Your task to perform on an android device: check data usage Image 0: 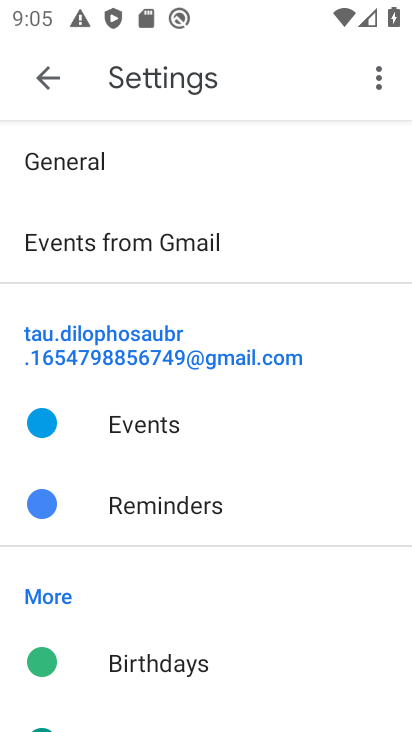
Step 0: press home button
Your task to perform on an android device: check data usage Image 1: 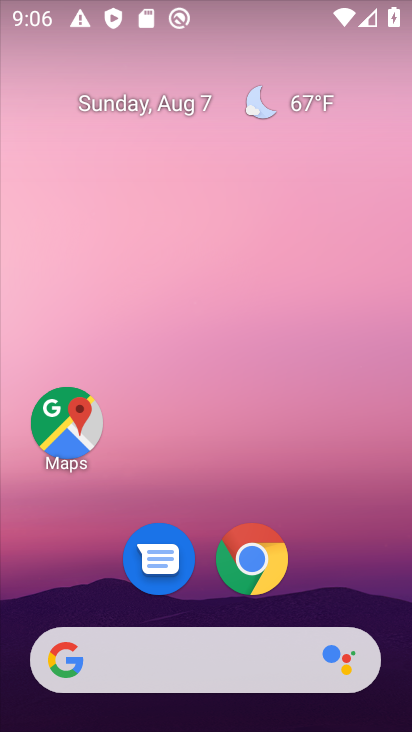
Step 1: drag from (341, 9) to (348, 627)
Your task to perform on an android device: check data usage Image 2: 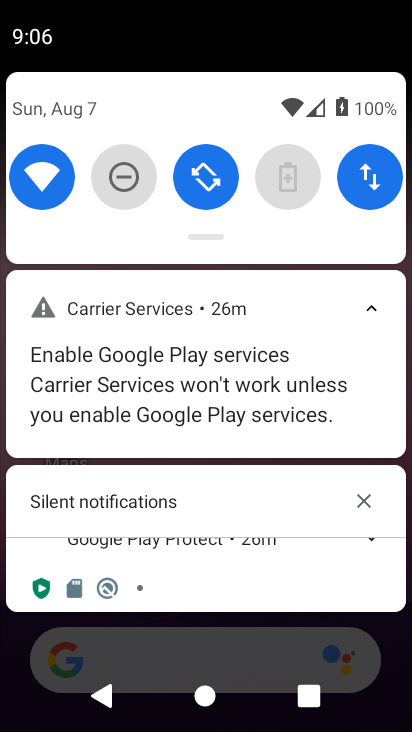
Step 2: click (364, 166)
Your task to perform on an android device: check data usage Image 3: 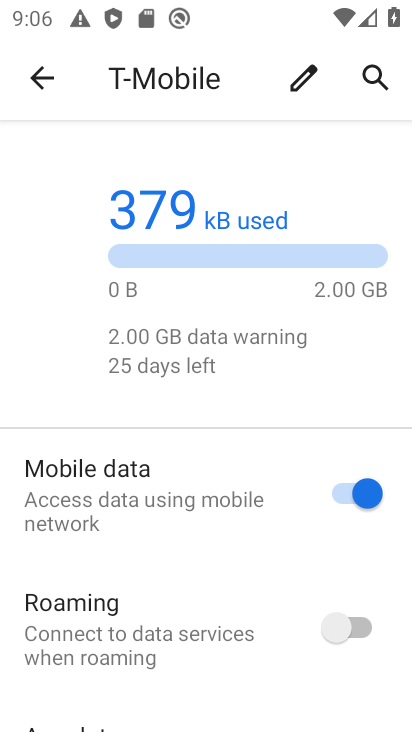
Step 3: task complete